Your task to perform on an android device: check out phone information Image 0: 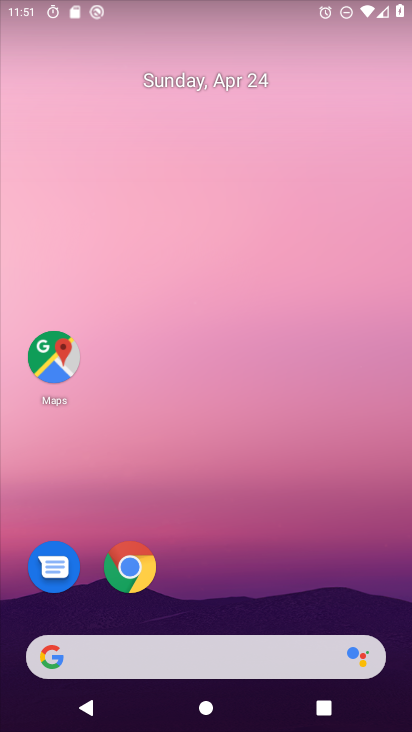
Step 0: drag from (276, 714) to (283, 157)
Your task to perform on an android device: check out phone information Image 1: 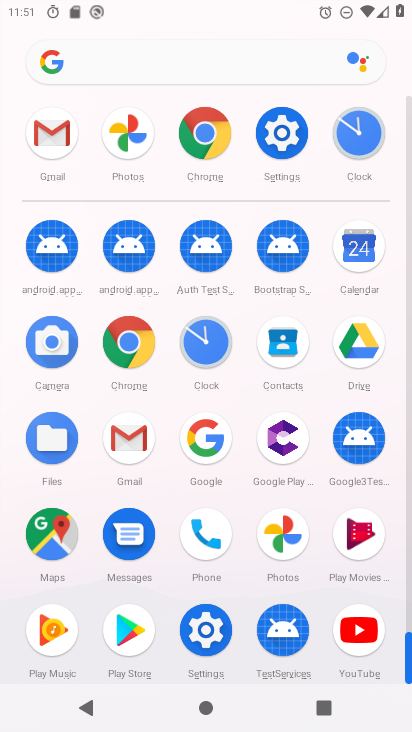
Step 1: drag from (312, 681) to (334, 190)
Your task to perform on an android device: check out phone information Image 2: 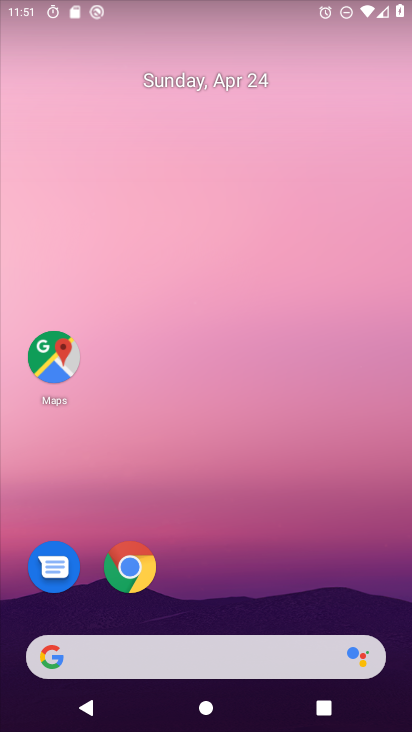
Step 2: drag from (296, 652) to (376, 614)
Your task to perform on an android device: check out phone information Image 3: 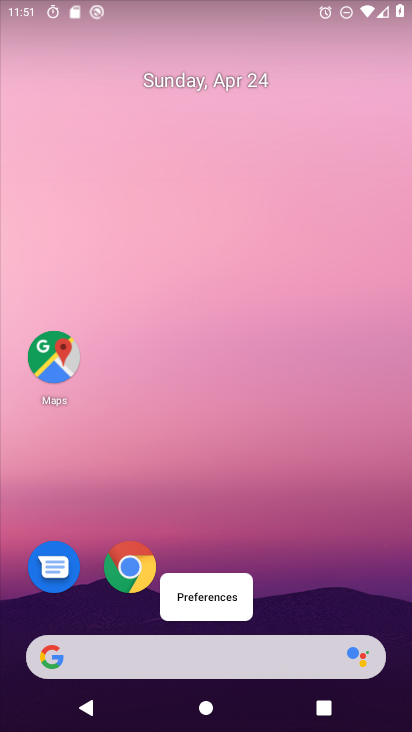
Step 3: drag from (268, 611) to (323, 15)
Your task to perform on an android device: check out phone information Image 4: 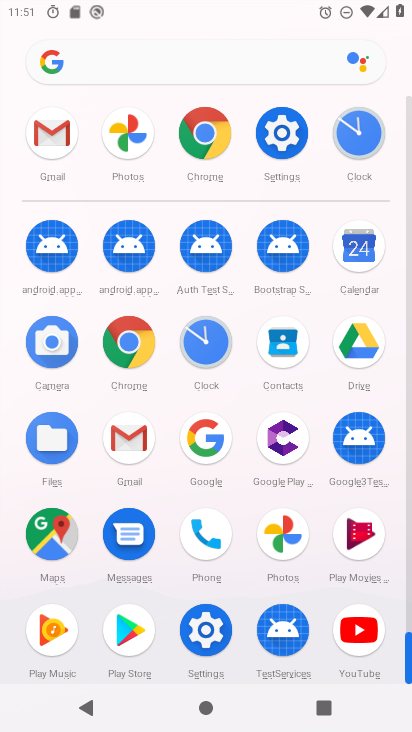
Step 4: click (199, 624)
Your task to perform on an android device: check out phone information Image 5: 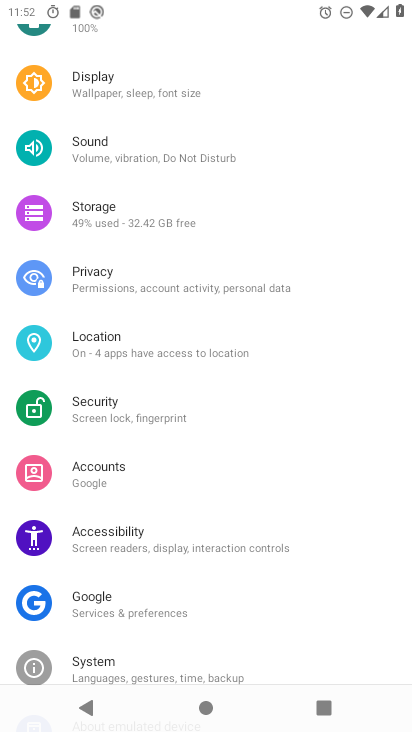
Step 5: drag from (220, 649) to (278, 145)
Your task to perform on an android device: check out phone information Image 6: 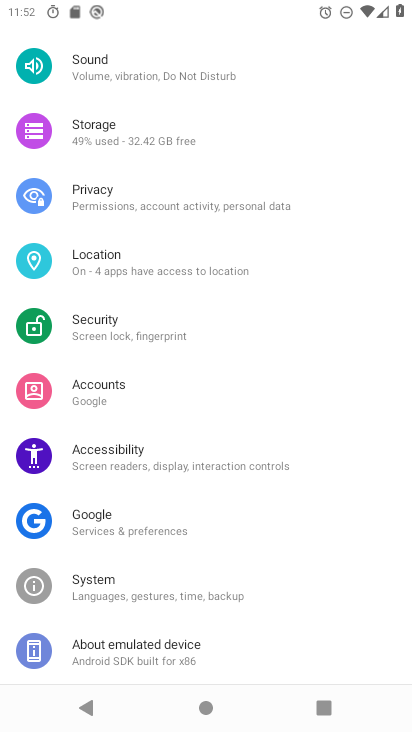
Step 6: click (289, 662)
Your task to perform on an android device: check out phone information Image 7: 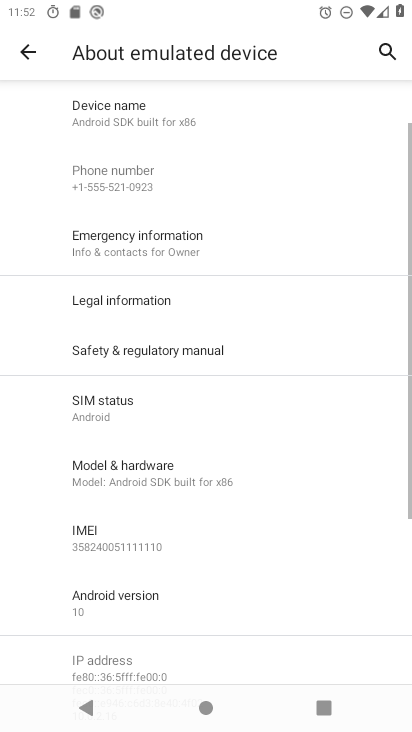
Step 7: task complete